Your task to perform on an android device: Clear the shopping cart on amazon. Add dell xps to the cart on amazon Image 0: 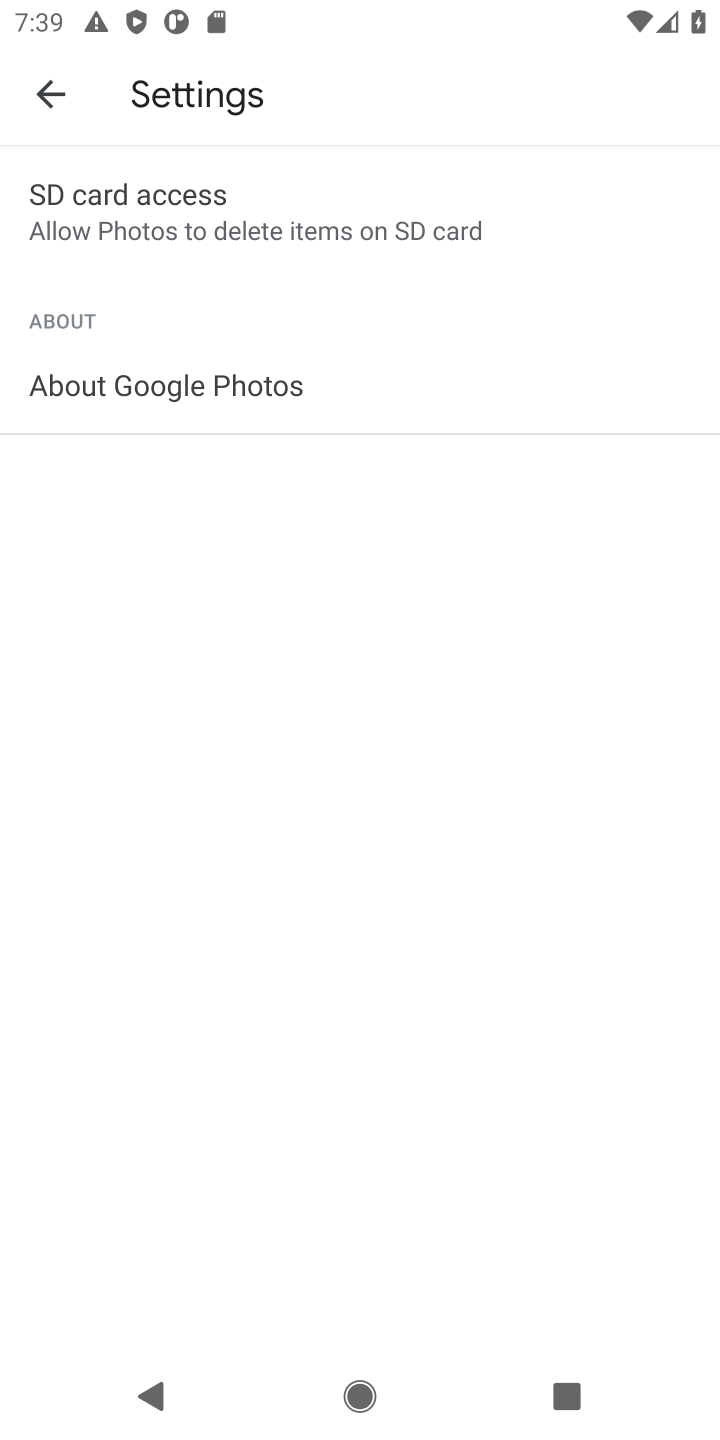
Step 0: press home button
Your task to perform on an android device: Clear the shopping cart on amazon. Add dell xps to the cart on amazon Image 1: 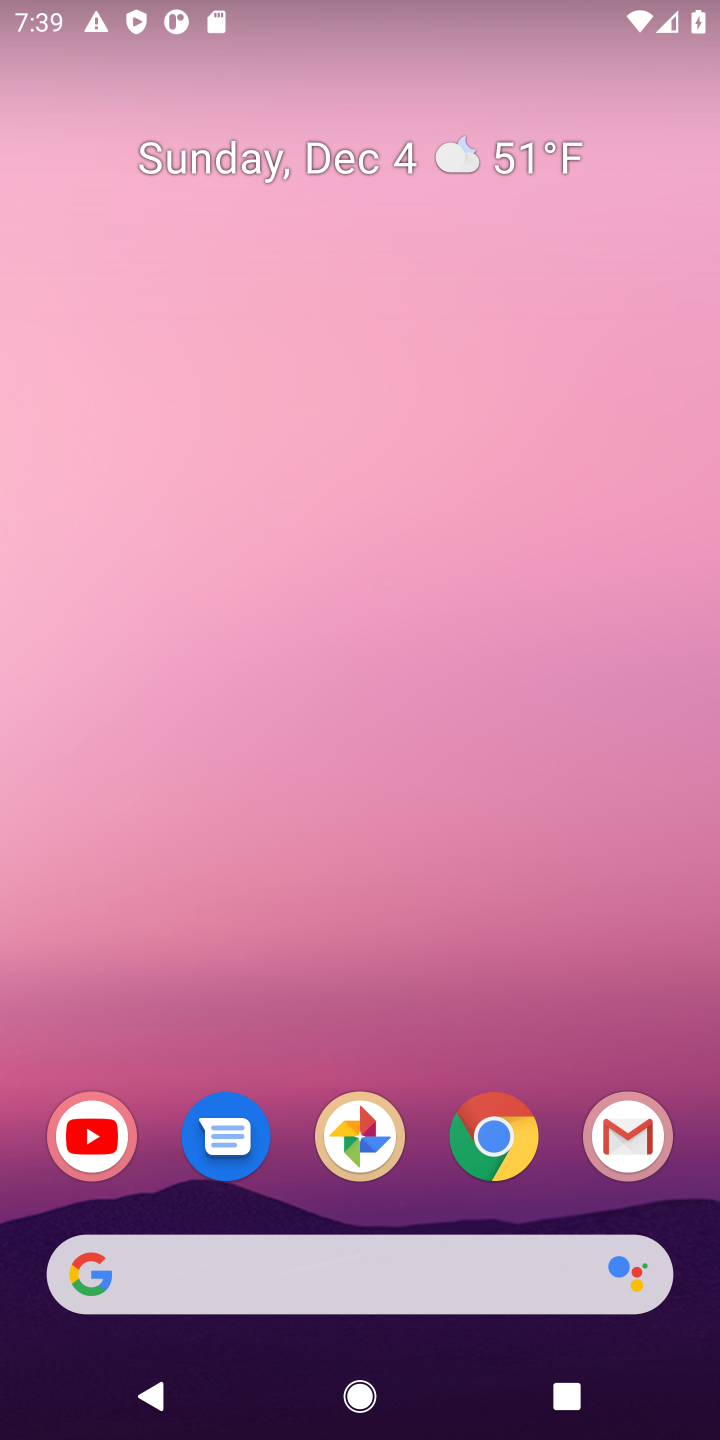
Step 1: click (511, 1153)
Your task to perform on an android device: Clear the shopping cart on amazon. Add dell xps to the cart on amazon Image 2: 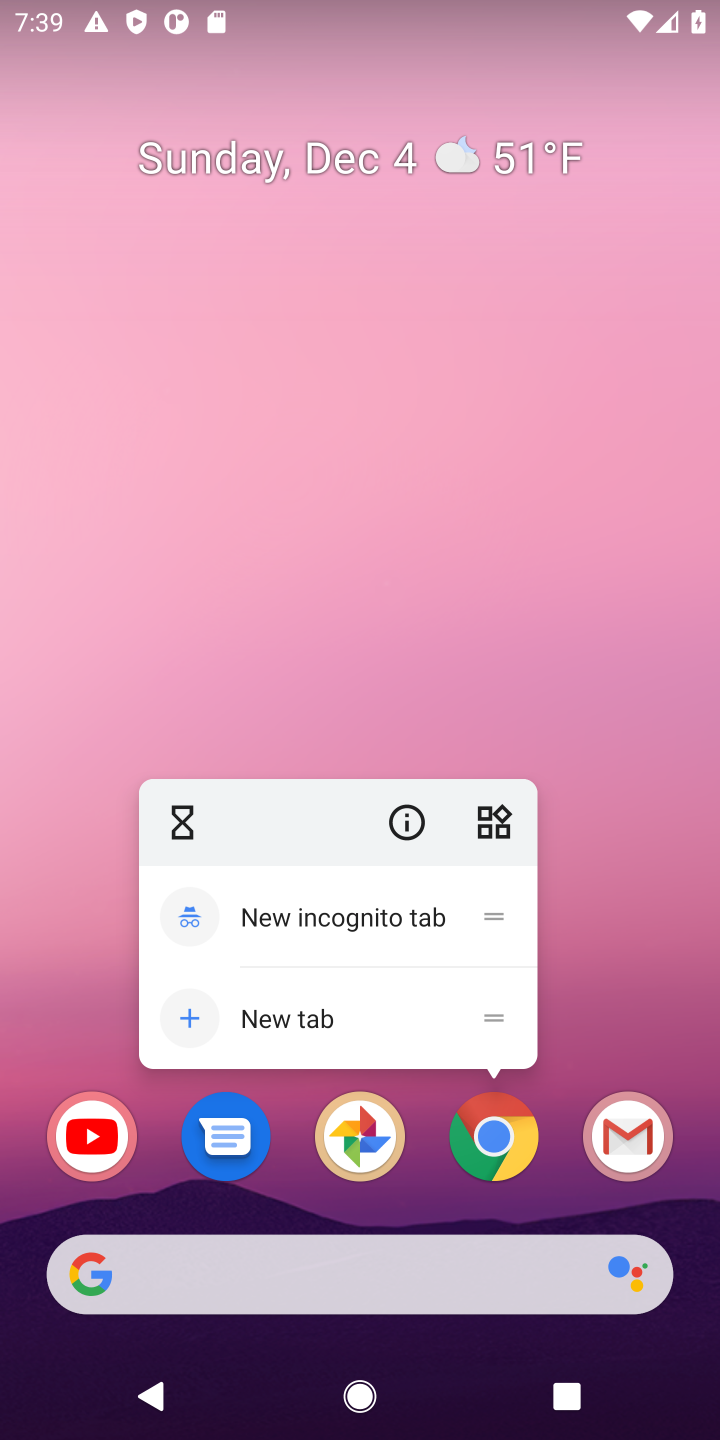
Step 2: click (488, 1176)
Your task to perform on an android device: Clear the shopping cart on amazon. Add dell xps to the cart on amazon Image 3: 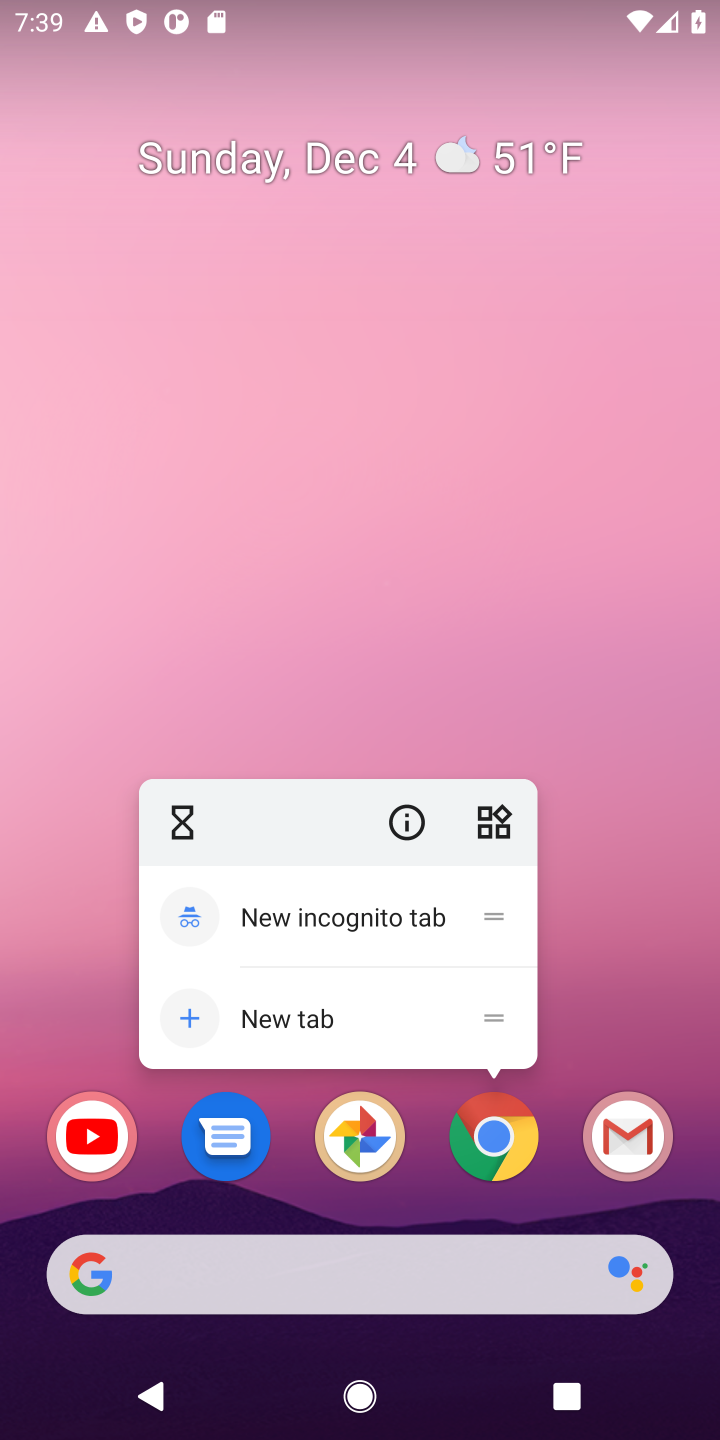
Step 3: click (488, 1176)
Your task to perform on an android device: Clear the shopping cart on amazon. Add dell xps to the cart on amazon Image 4: 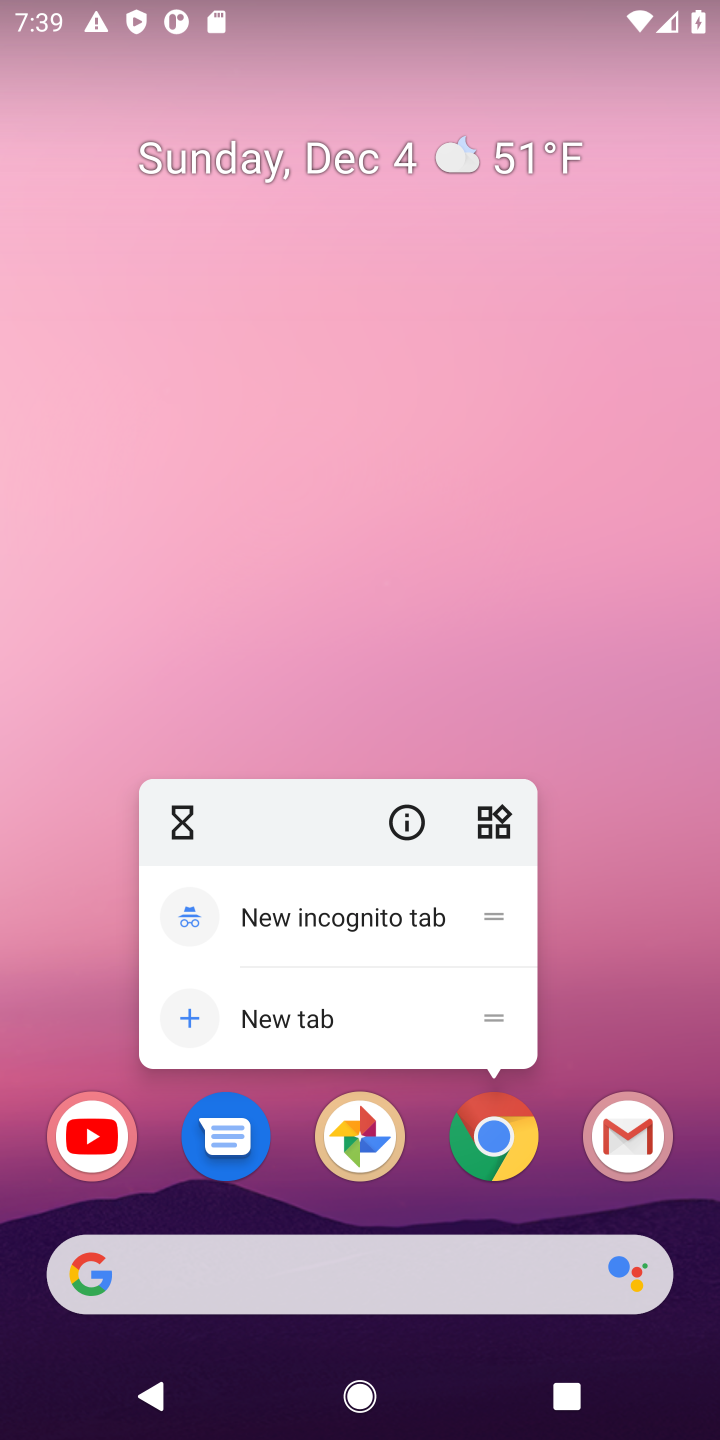
Step 4: click (489, 1155)
Your task to perform on an android device: Clear the shopping cart on amazon. Add dell xps to the cart on amazon Image 5: 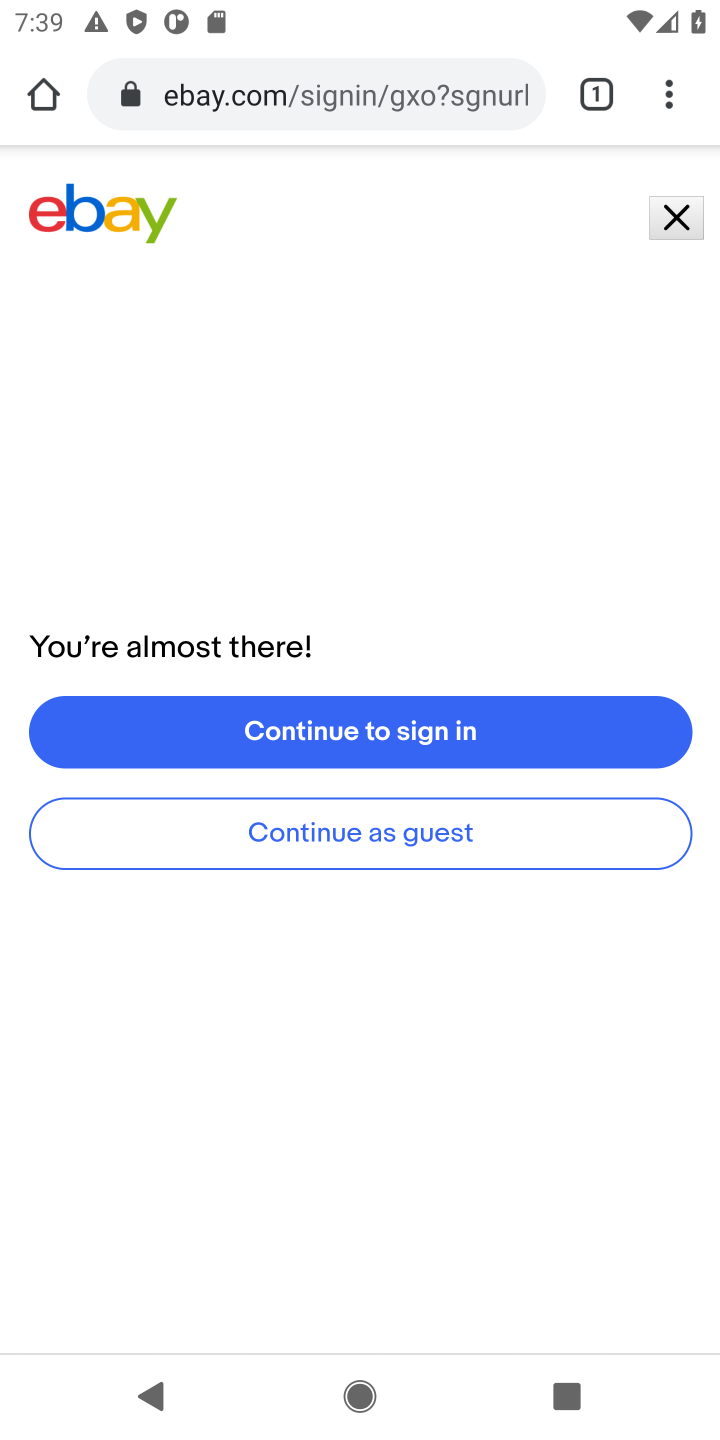
Step 5: click (364, 117)
Your task to perform on an android device: Clear the shopping cart on amazon. Add dell xps to the cart on amazon Image 6: 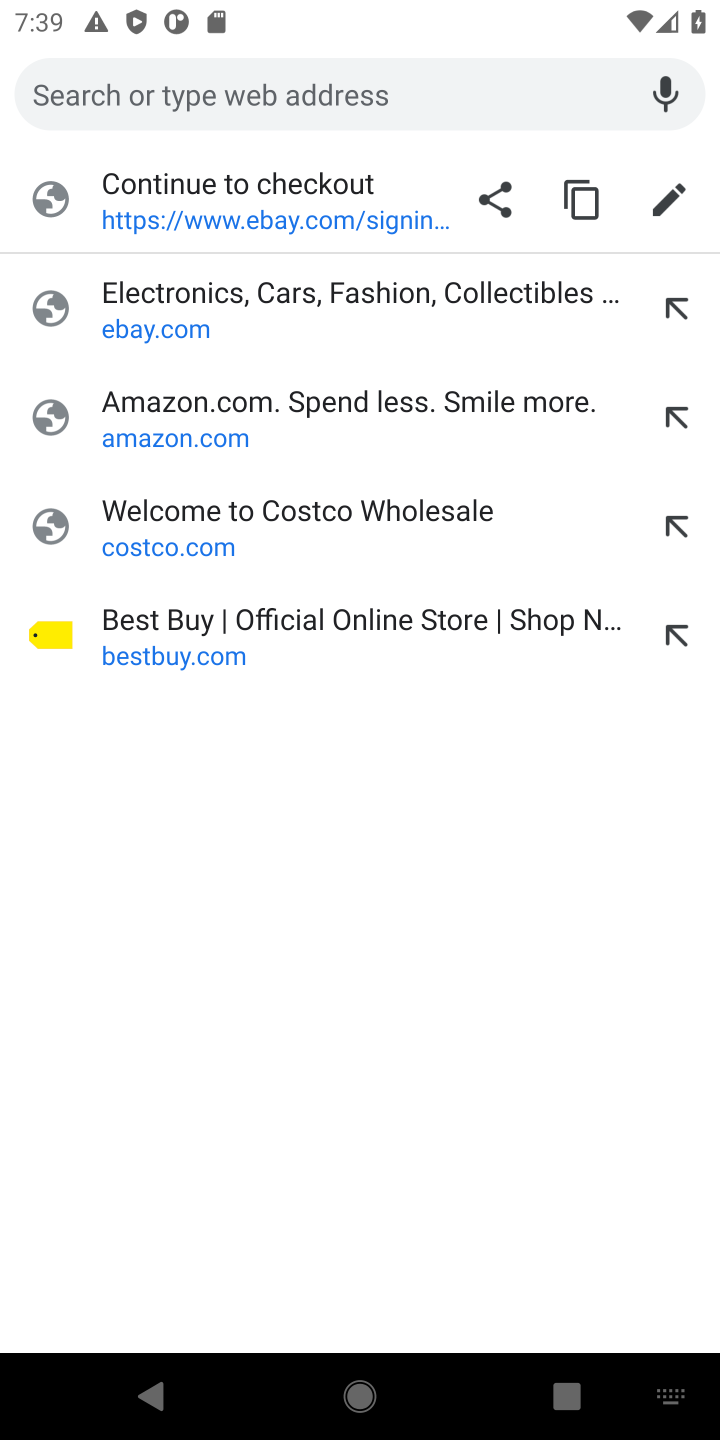
Step 6: click (275, 418)
Your task to perform on an android device: Clear the shopping cart on amazon. Add dell xps to the cart on amazon Image 7: 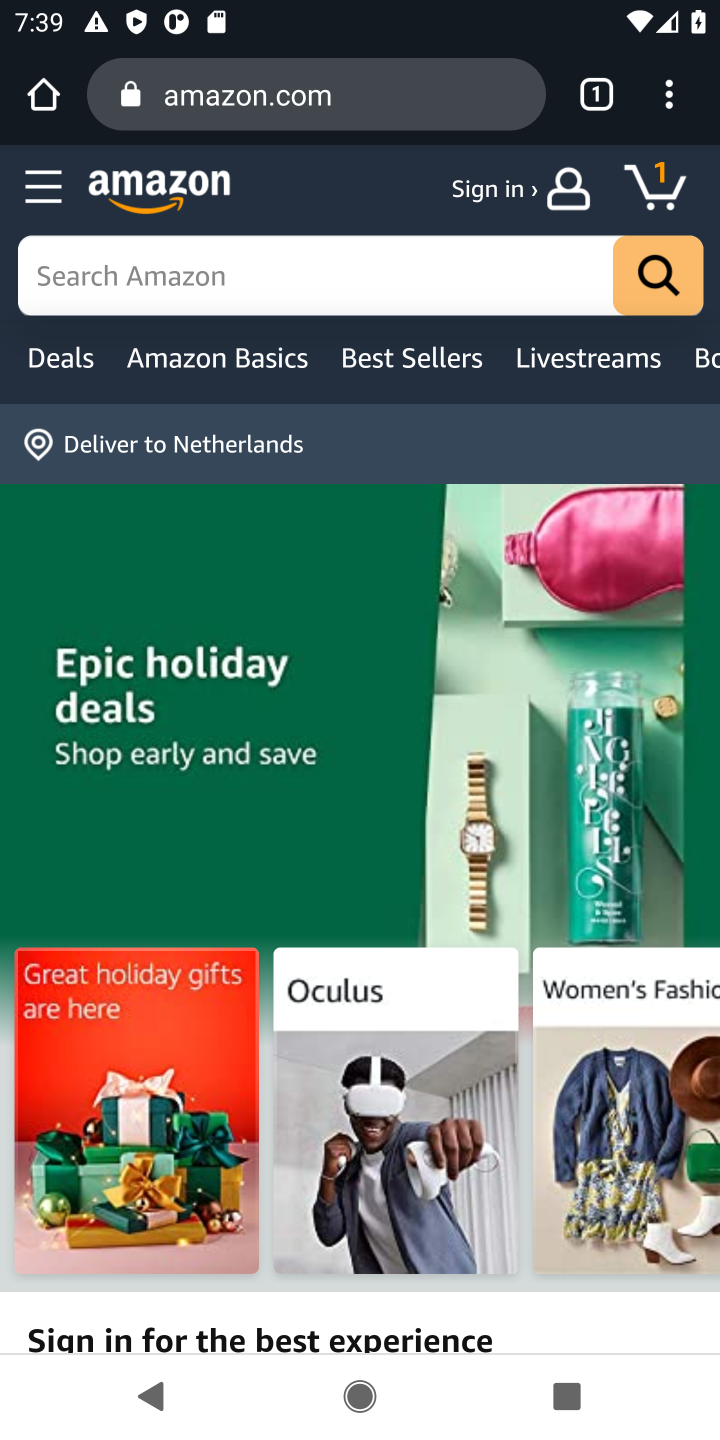
Step 7: click (665, 187)
Your task to perform on an android device: Clear the shopping cart on amazon. Add dell xps to the cart on amazon Image 8: 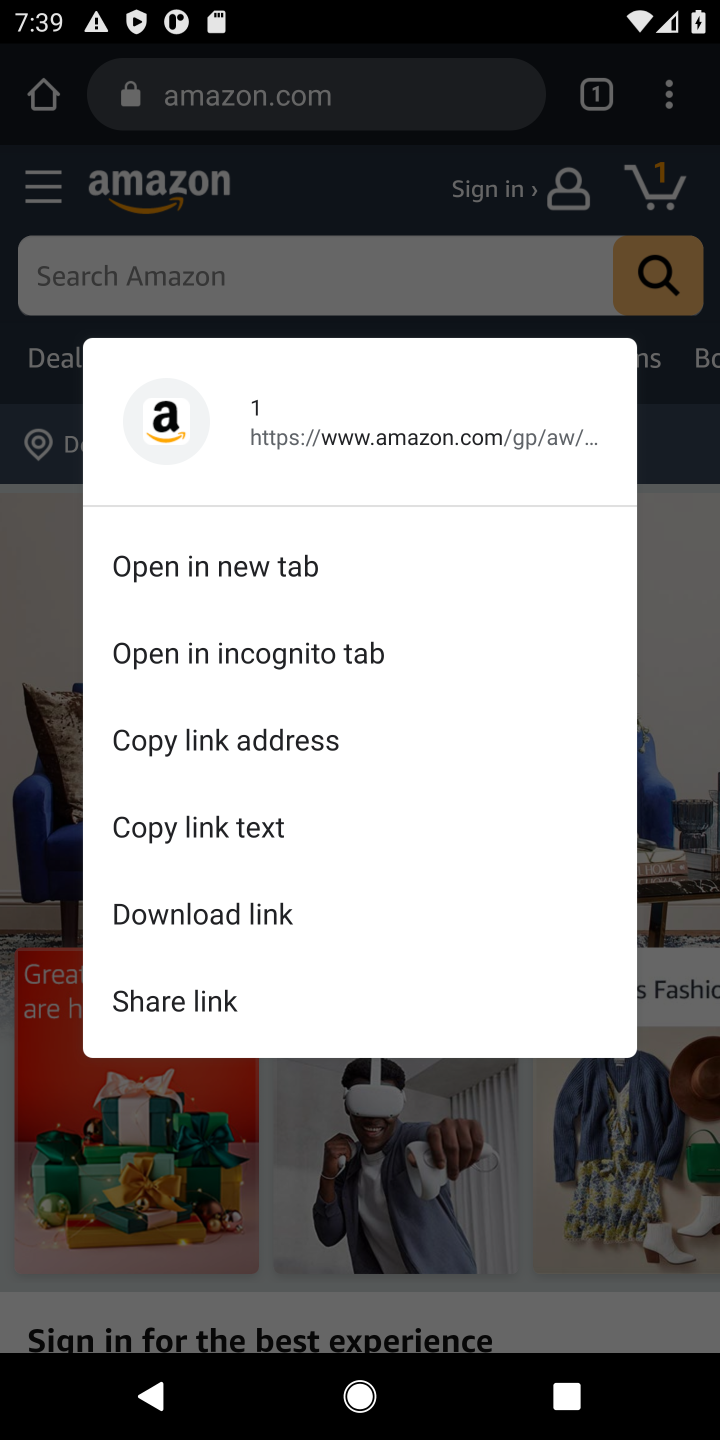
Step 8: click (653, 165)
Your task to perform on an android device: Clear the shopping cart on amazon. Add dell xps to the cart on amazon Image 9: 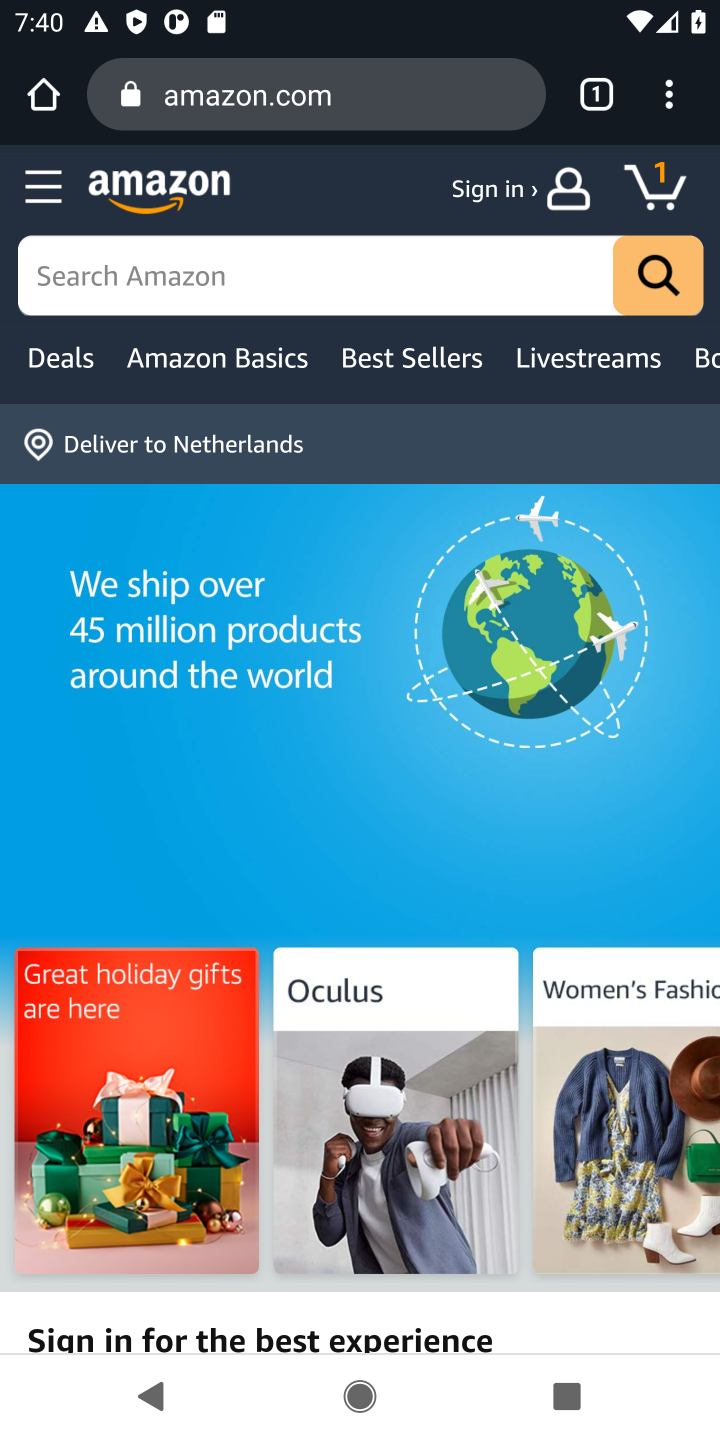
Step 9: click (674, 185)
Your task to perform on an android device: Clear the shopping cart on amazon. Add dell xps to the cart on amazon Image 10: 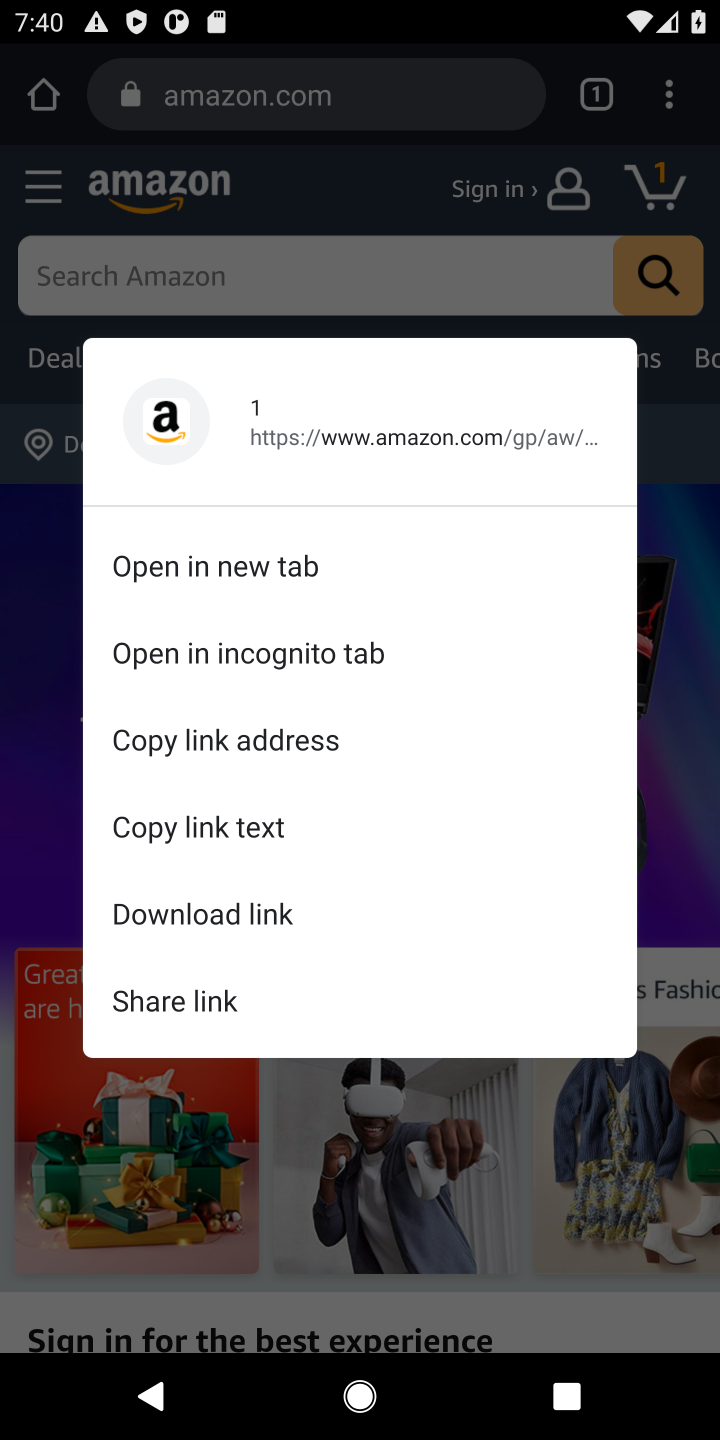
Step 10: click (659, 191)
Your task to perform on an android device: Clear the shopping cart on amazon. Add dell xps to the cart on amazon Image 11: 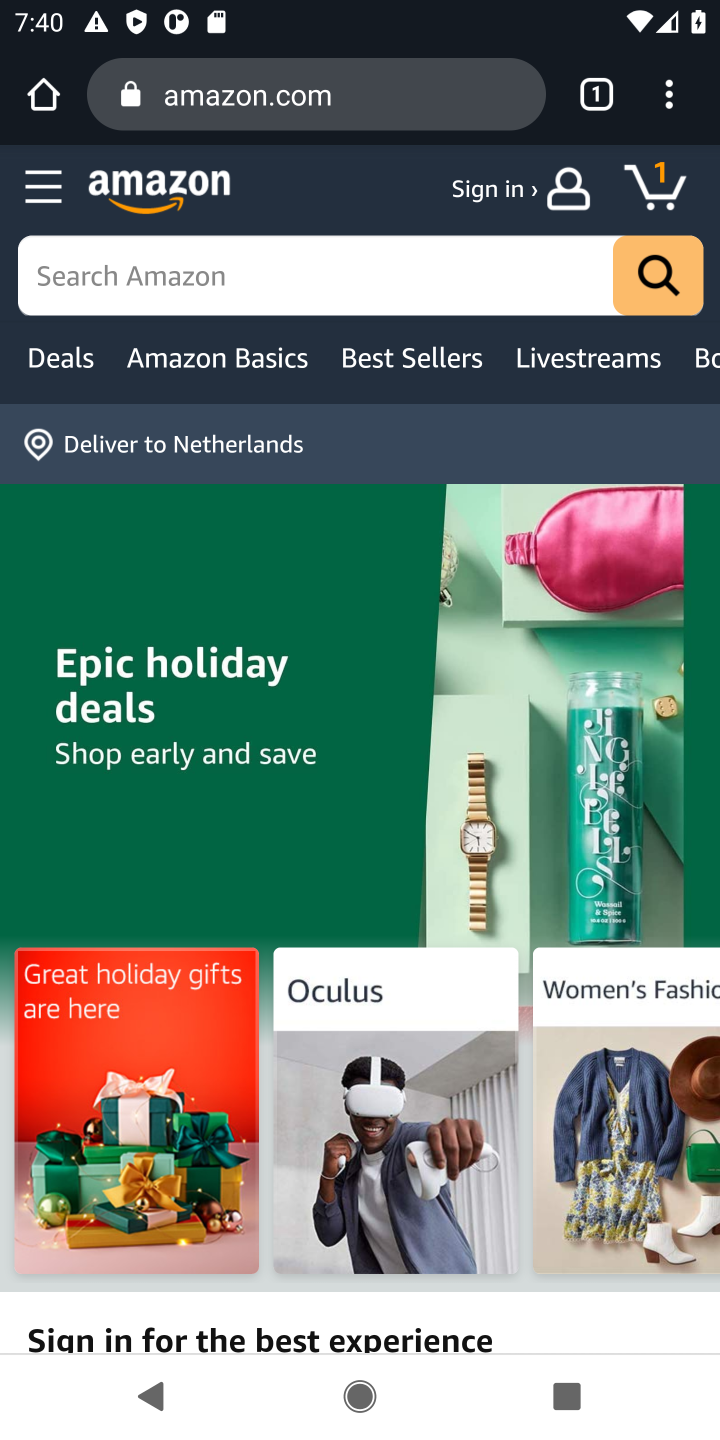
Step 11: click (659, 191)
Your task to perform on an android device: Clear the shopping cart on amazon. Add dell xps to the cart on amazon Image 12: 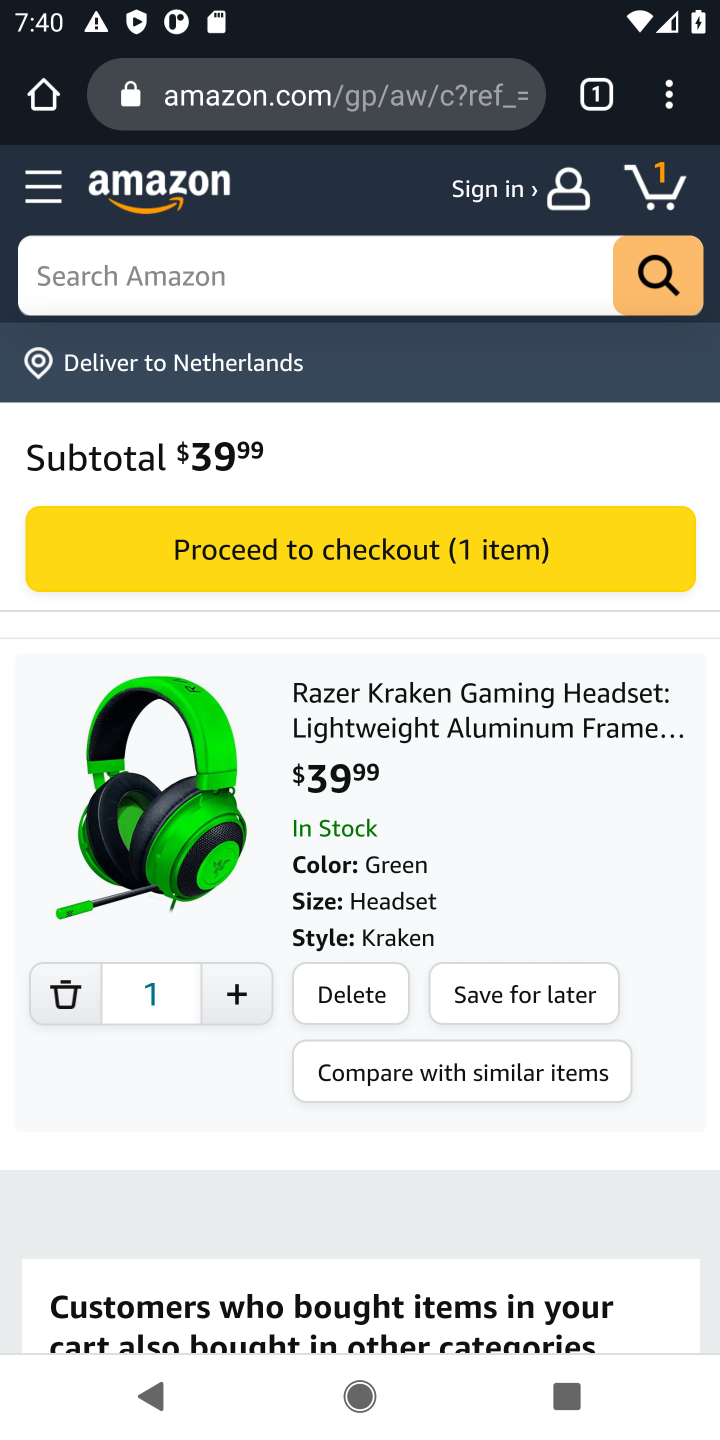
Step 12: click (364, 979)
Your task to perform on an android device: Clear the shopping cart on amazon. Add dell xps to the cart on amazon Image 13: 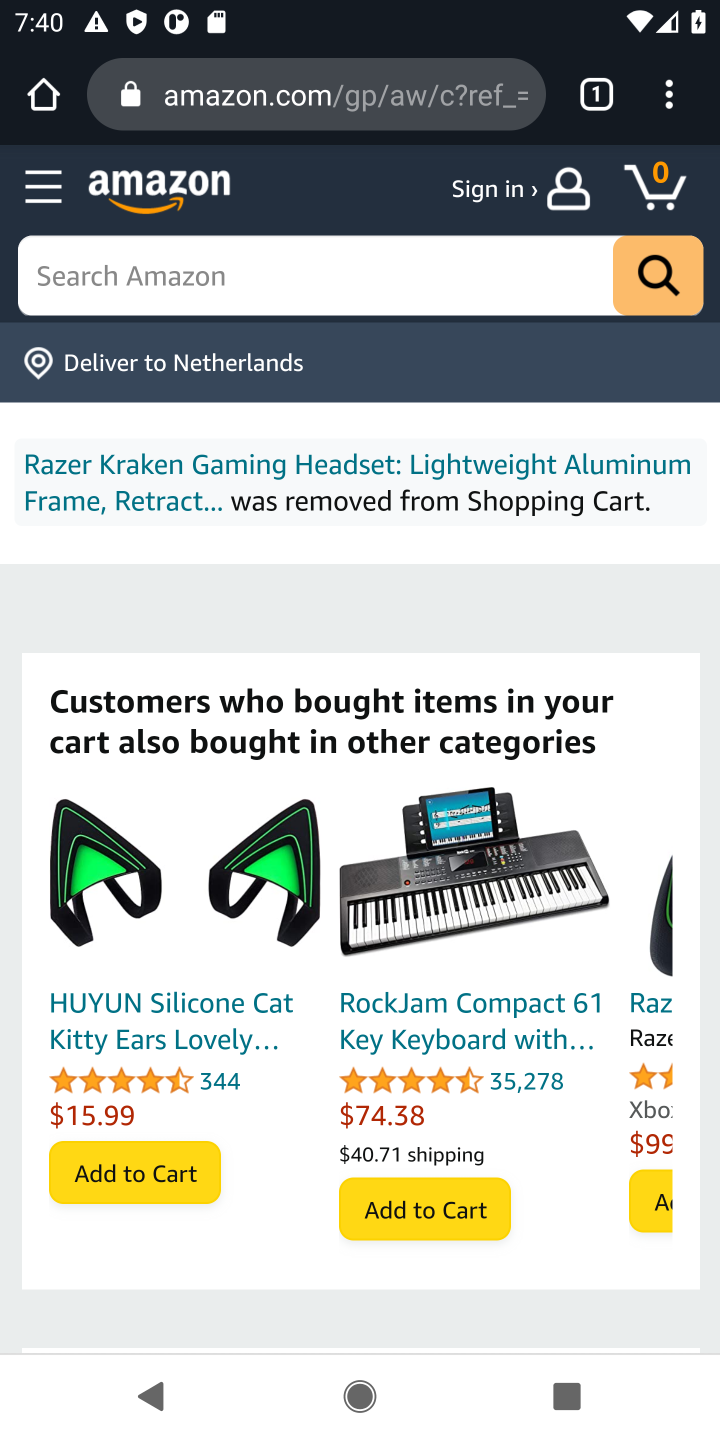
Step 13: click (212, 274)
Your task to perform on an android device: Clear the shopping cart on amazon. Add dell xps to the cart on amazon Image 14: 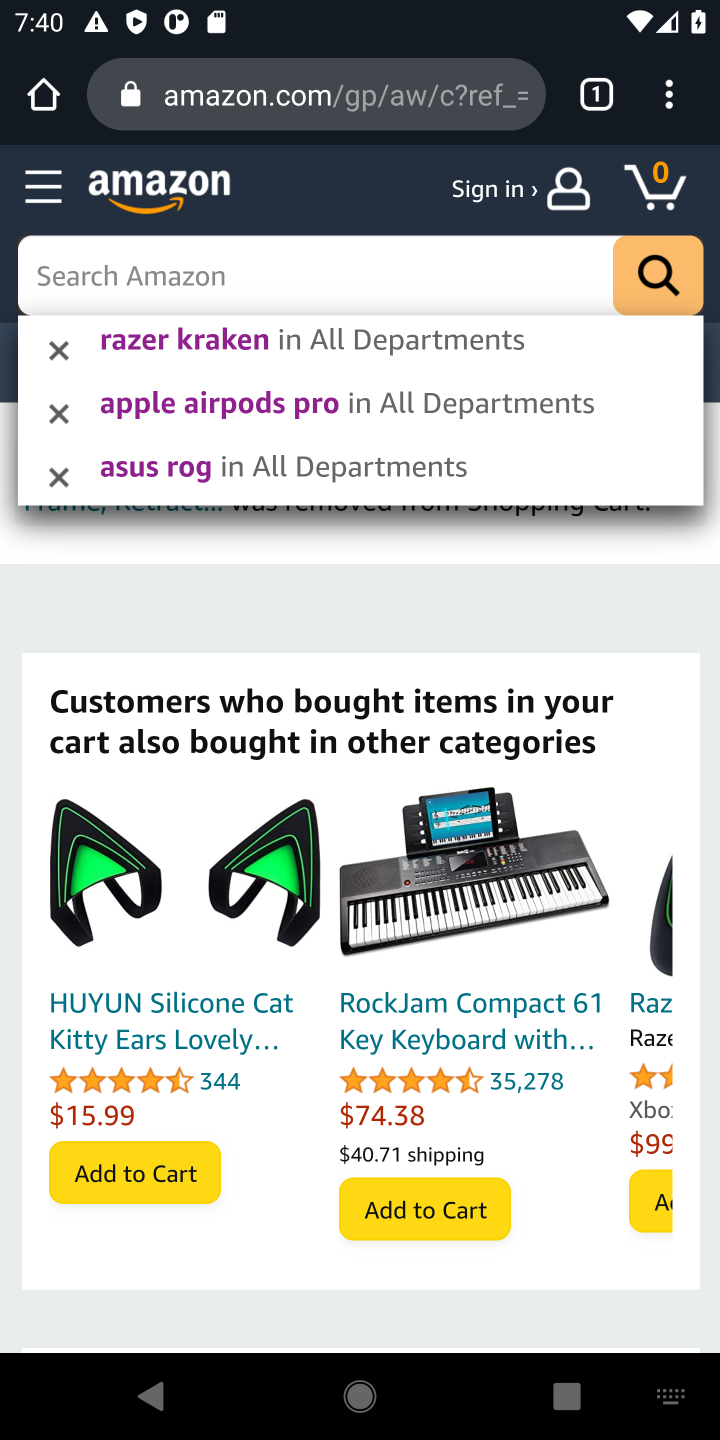
Step 14: type "dell xps"
Your task to perform on an android device: Clear the shopping cart on amazon. Add dell xps to the cart on amazon Image 15: 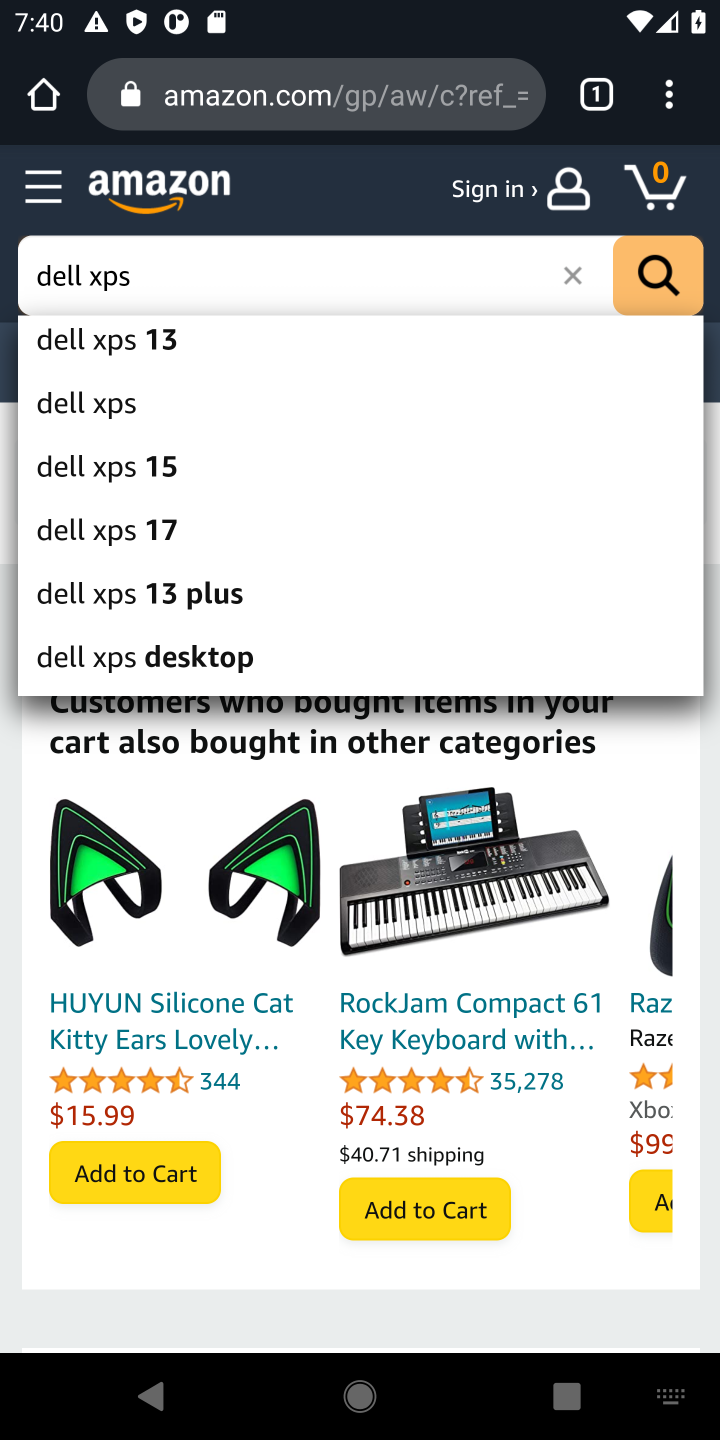
Step 15: click (94, 408)
Your task to perform on an android device: Clear the shopping cart on amazon. Add dell xps to the cart on amazon Image 16: 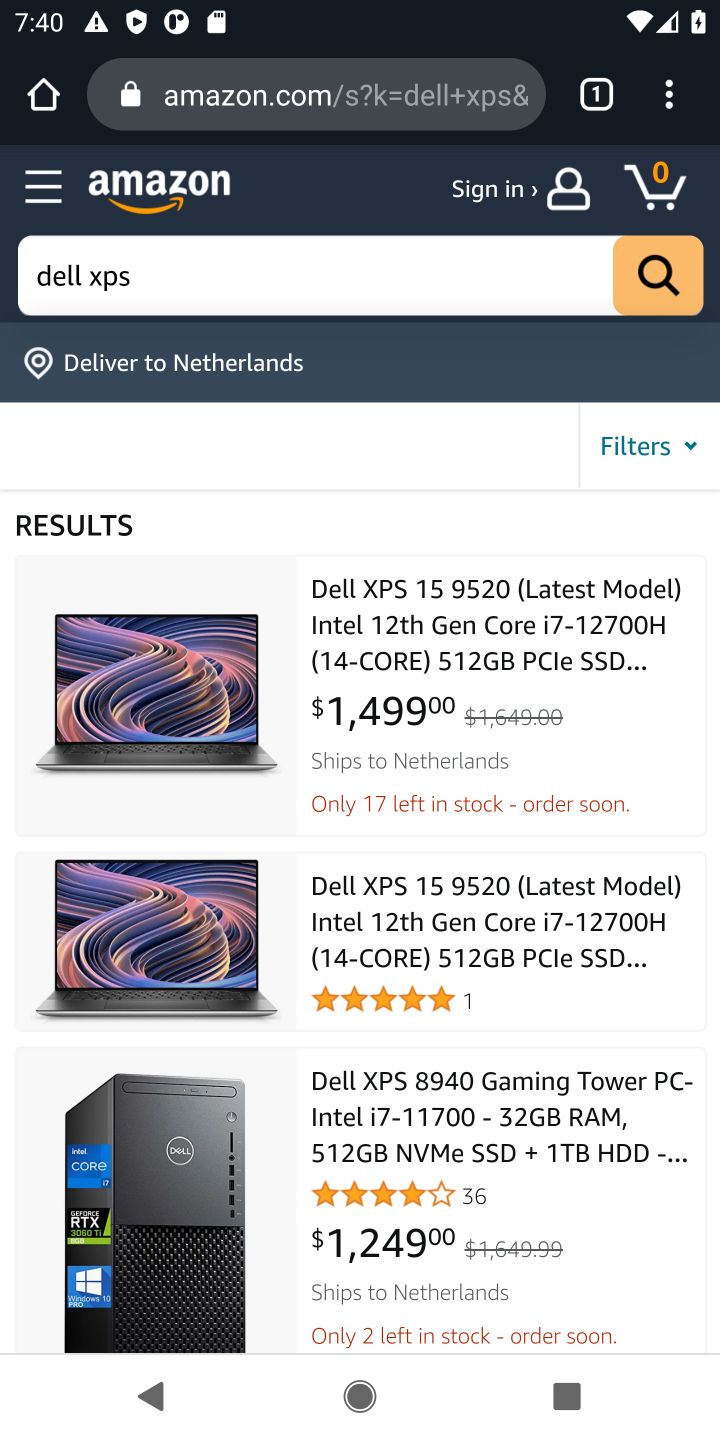
Step 16: click (196, 649)
Your task to perform on an android device: Clear the shopping cart on amazon. Add dell xps to the cart on amazon Image 17: 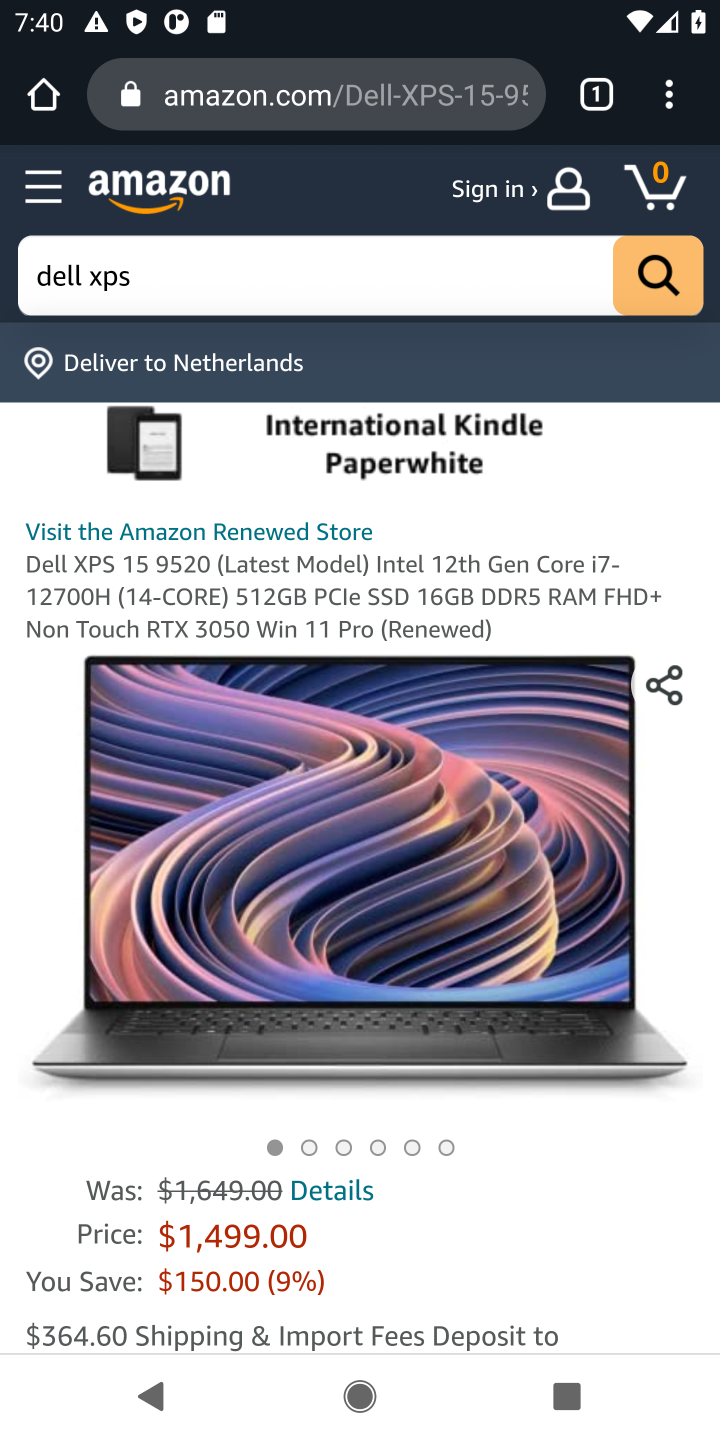
Step 17: drag from (561, 1158) to (627, 692)
Your task to perform on an android device: Clear the shopping cart on amazon. Add dell xps to the cart on amazon Image 18: 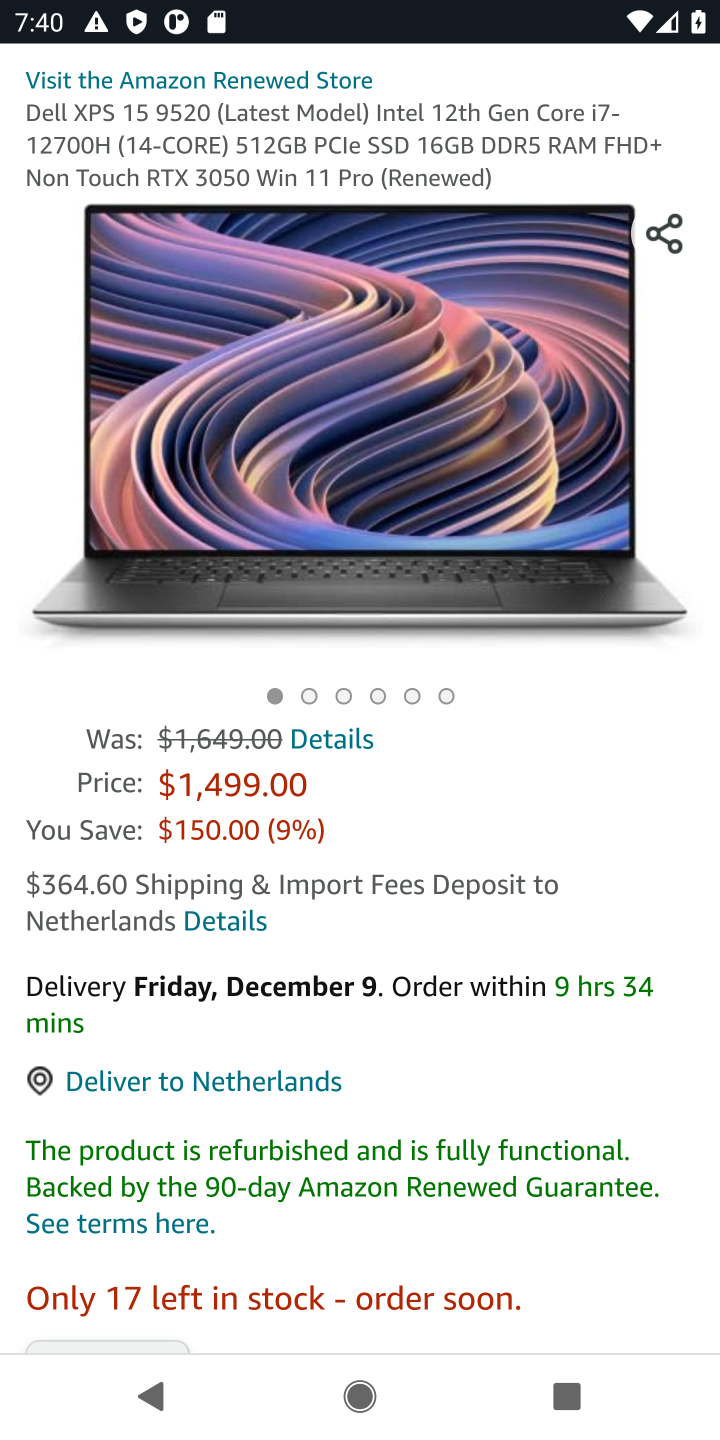
Step 18: drag from (612, 1088) to (633, 755)
Your task to perform on an android device: Clear the shopping cart on amazon. Add dell xps to the cart on amazon Image 19: 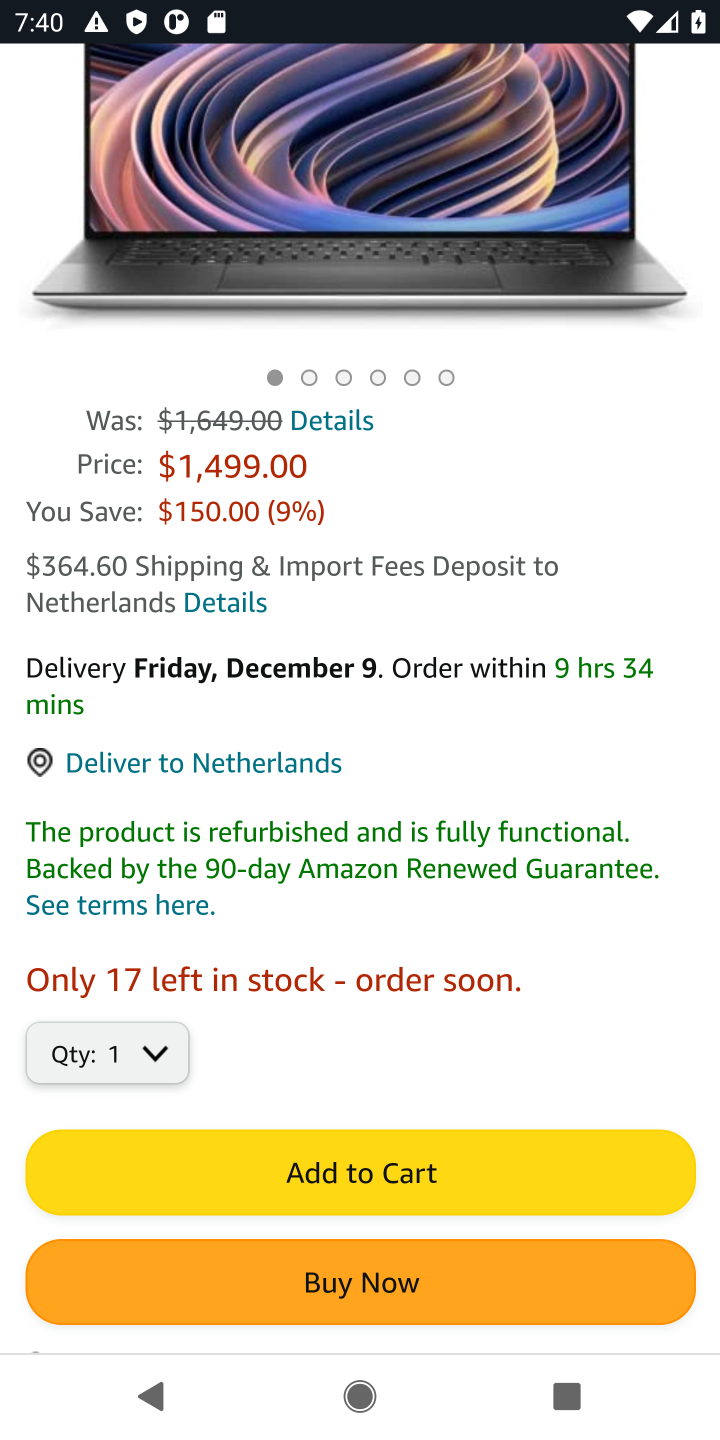
Step 19: click (450, 1164)
Your task to perform on an android device: Clear the shopping cart on amazon. Add dell xps to the cart on amazon Image 20: 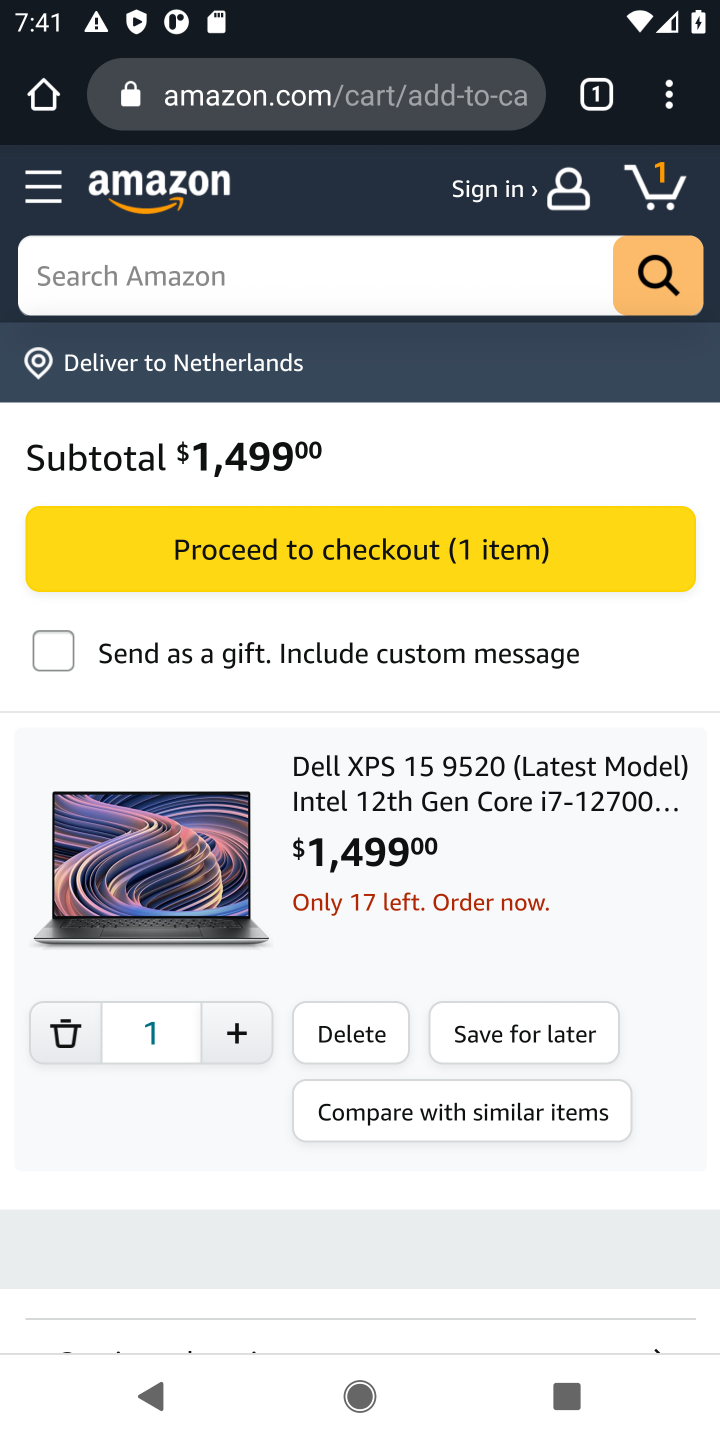
Step 20: task complete